Your task to perform on an android device: see creations saved in the google photos Image 0: 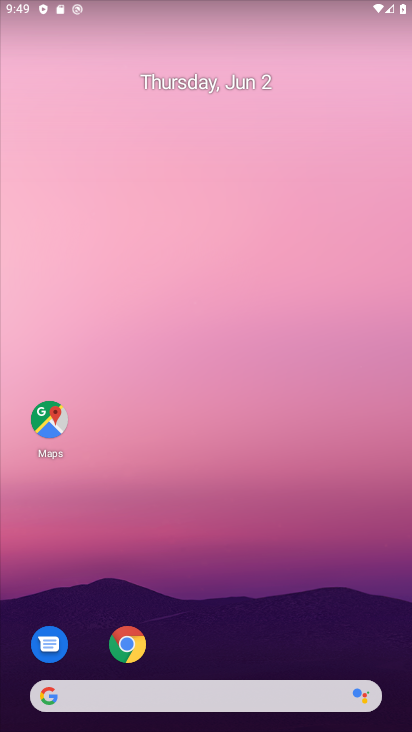
Step 0: drag from (228, 650) to (219, 280)
Your task to perform on an android device: see creations saved in the google photos Image 1: 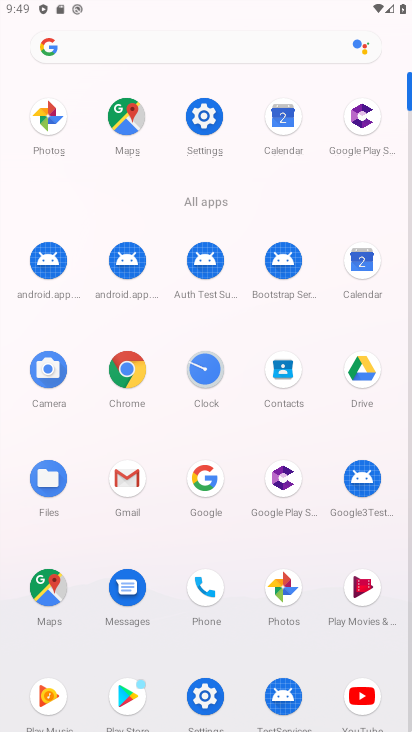
Step 1: click (298, 594)
Your task to perform on an android device: see creations saved in the google photos Image 2: 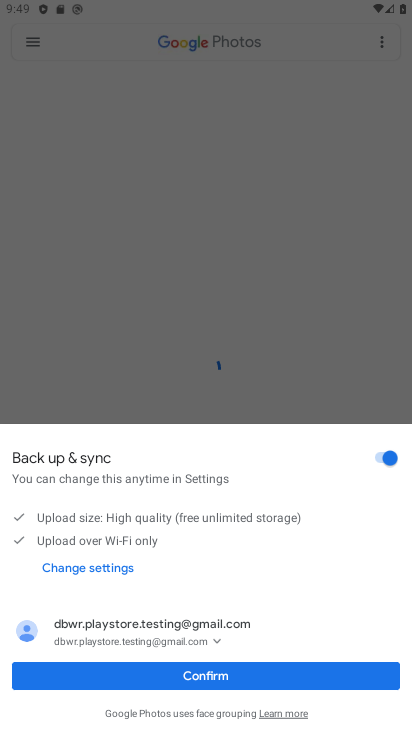
Step 2: click (203, 676)
Your task to perform on an android device: see creations saved in the google photos Image 3: 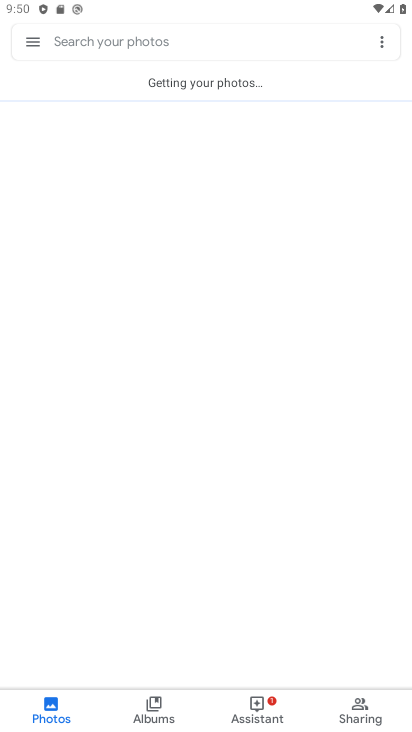
Step 3: click (159, 29)
Your task to perform on an android device: see creations saved in the google photos Image 4: 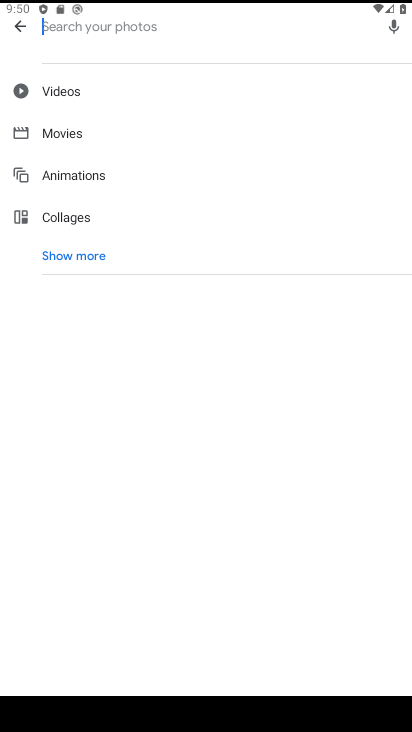
Step 4: click (79, 261)
Your task to perform on an android device: see creations saved in the google photos Image 5: 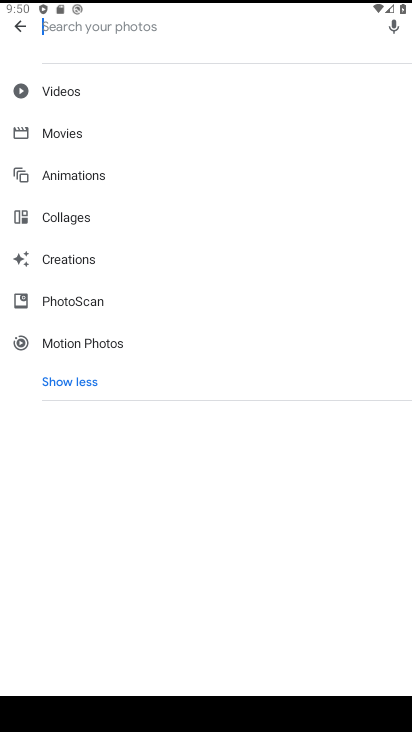
Step 5: click (79, 261)
Your task to perform on an android device: see creations saved in the google photos Image 6: 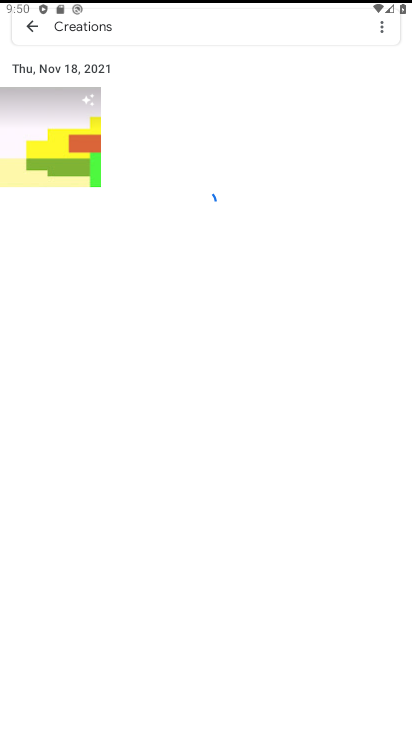
Step 6: task complete